Your task to perform on an android device: What's on my calendar tomorrow? Image 0: 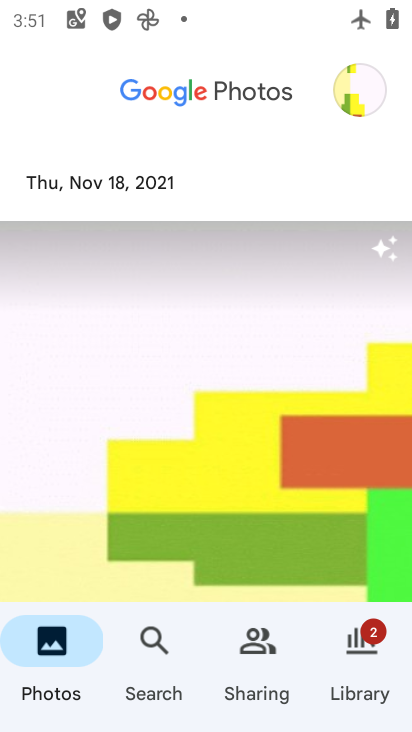
Step 0: press home button
Your task to perform on an android device: What's on my calendar tomorrow? Image 1: 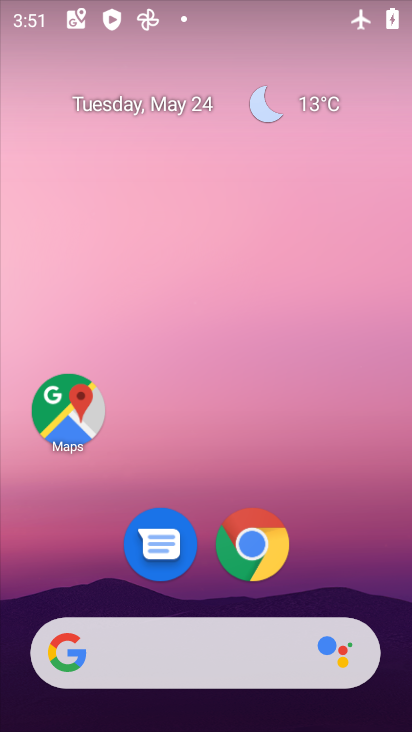
Step 1: drag from (324, 581) to (296, 50)
Your task to perform on an android device: What's on my calendar tomorrow? Image 2: 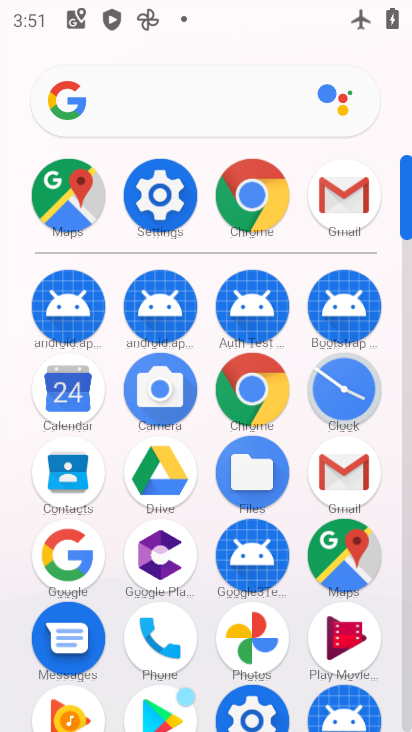
Step 2: click (78, 400)
Your task to perform on an android device: What's on my calendar tomorrow? Image 3: 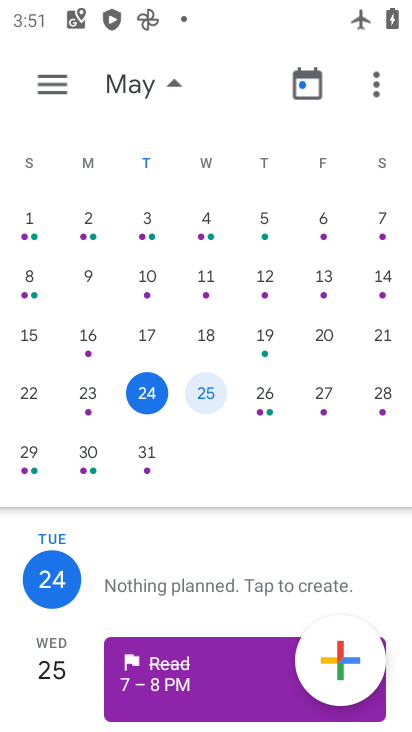
Step 3: click (197, 403)
Your task to perform on an android device: What's on my calendar tomorrow? Image 4: 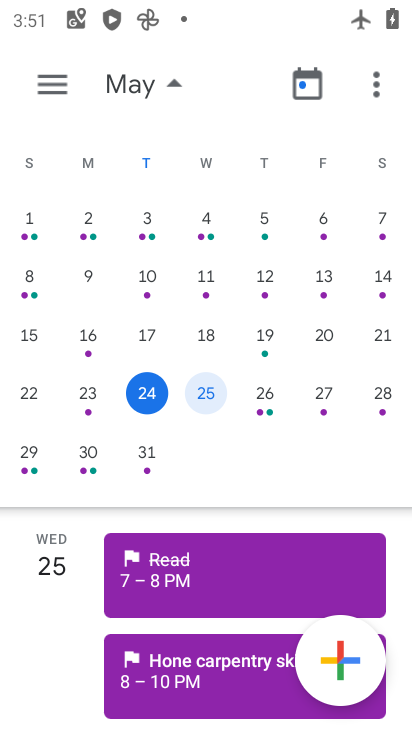
Step 4: task complete